Your task to perform on an android device: set the timer Image 0: 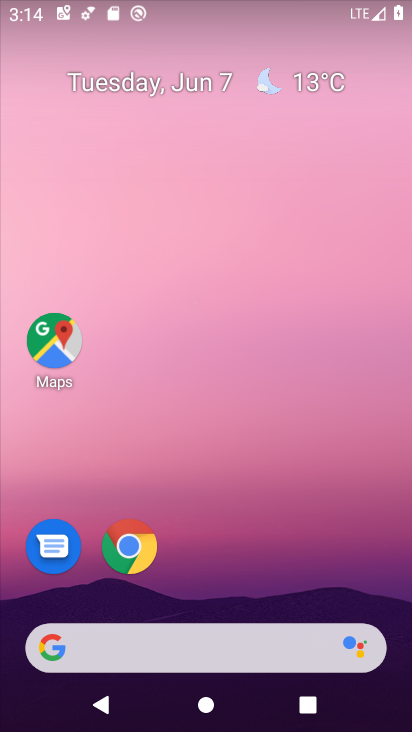
Step 0: drag from (361, 550) to (343, 129)
Your task to perform on an android device: set the timer Image 1: 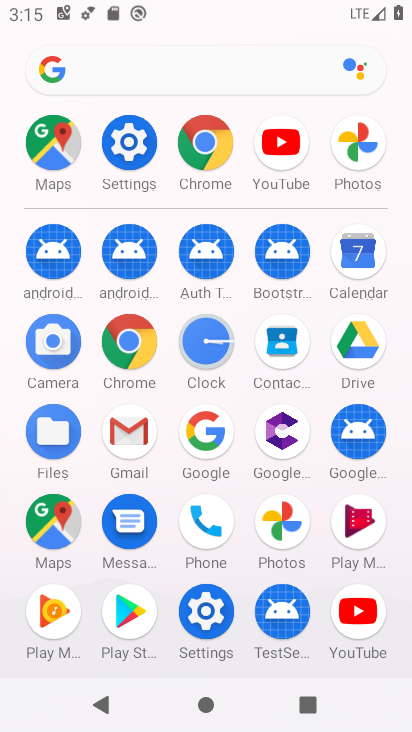
Step 1: click (226, 351)
Your task to perform on an android device: set the timer Image 2: 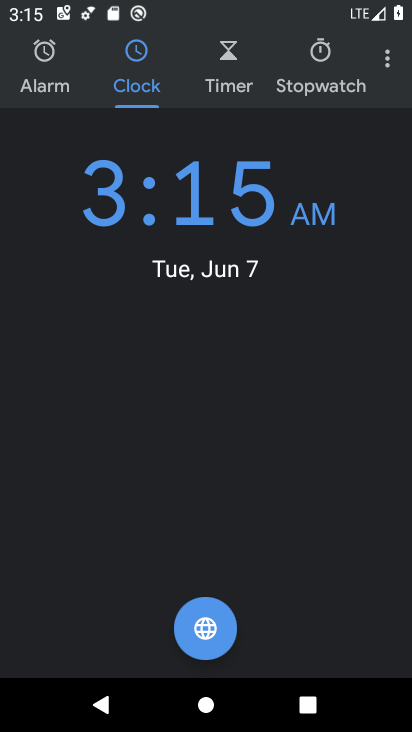
Step 2: click (237, 86)
Your task to perform on an android device: set the timer Image 3: 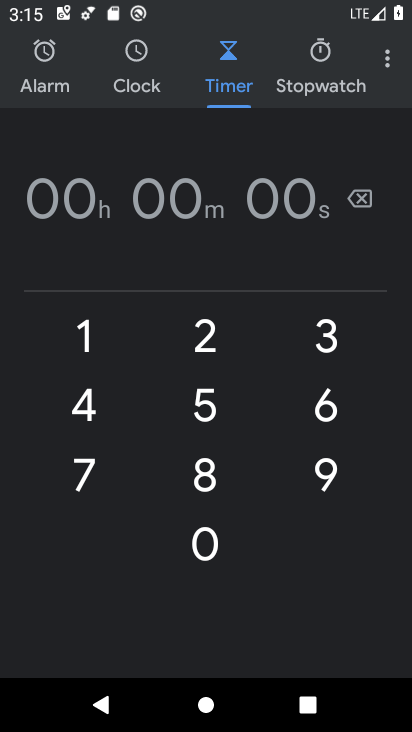
Step 3: click (213, 422)
Your task to perform on an android device: set the timer Image 4: 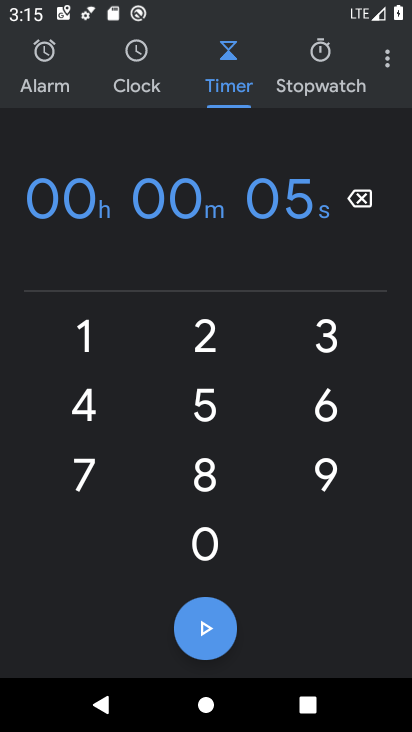
Step 4: task complete